Your task to perform on an android device: star an email in the gmail app Image 0: 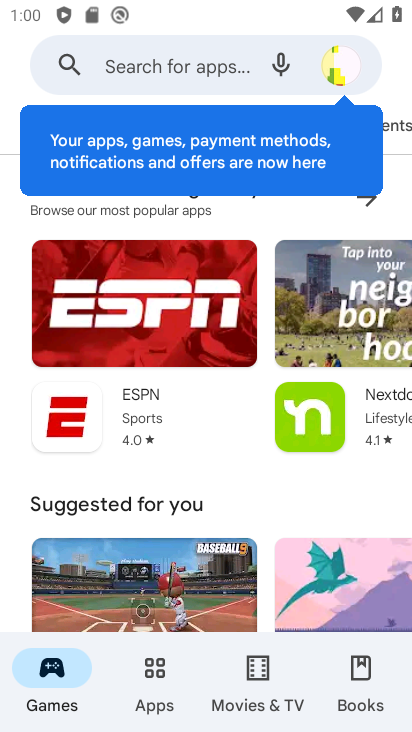
Step 0: press home button
Your task to perform on an android device: star an email in the gmail app Image 1: 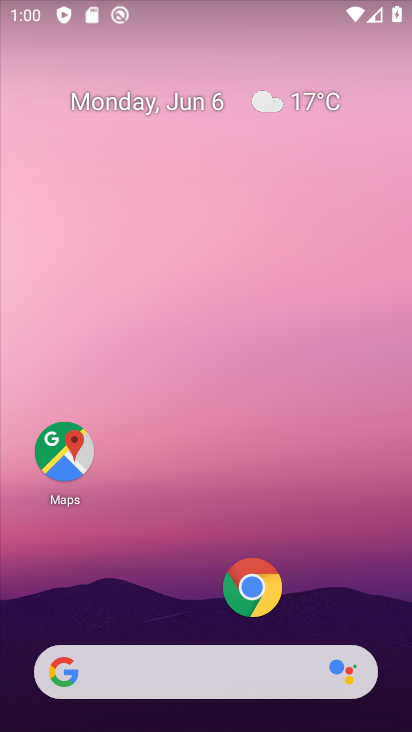
Step 1: drag from (167, 635) to (190, 46)
Your task to perform on an android device: star an email in the gmail app Image 2: 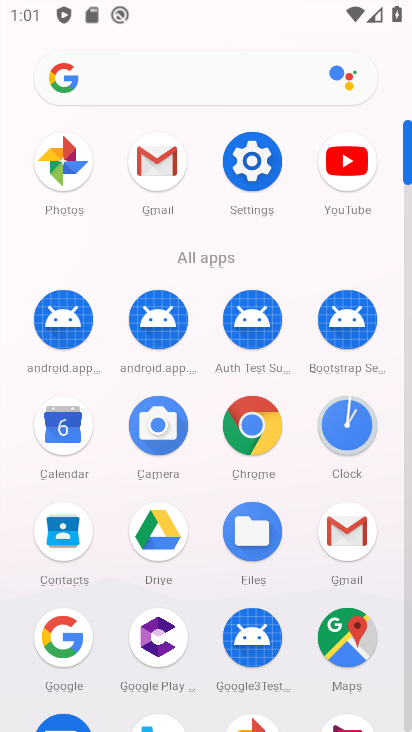
Step 2: click (357, 540)
Your task to perform on an android device: star an email in the gmail app Image 3: 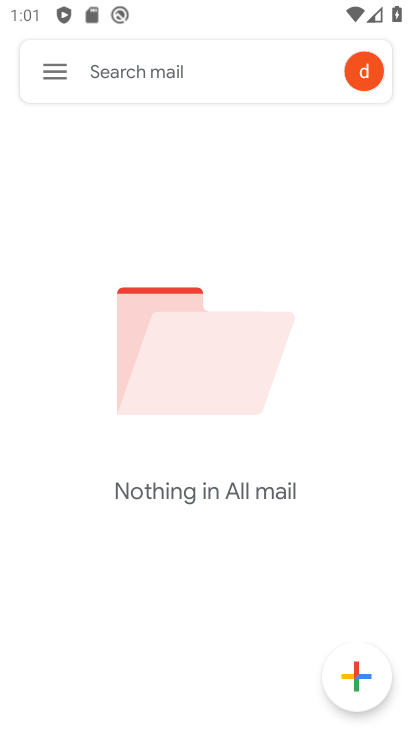
Step 3: task complete